Your task to perform on an android device: change text size in settings app Image 0: 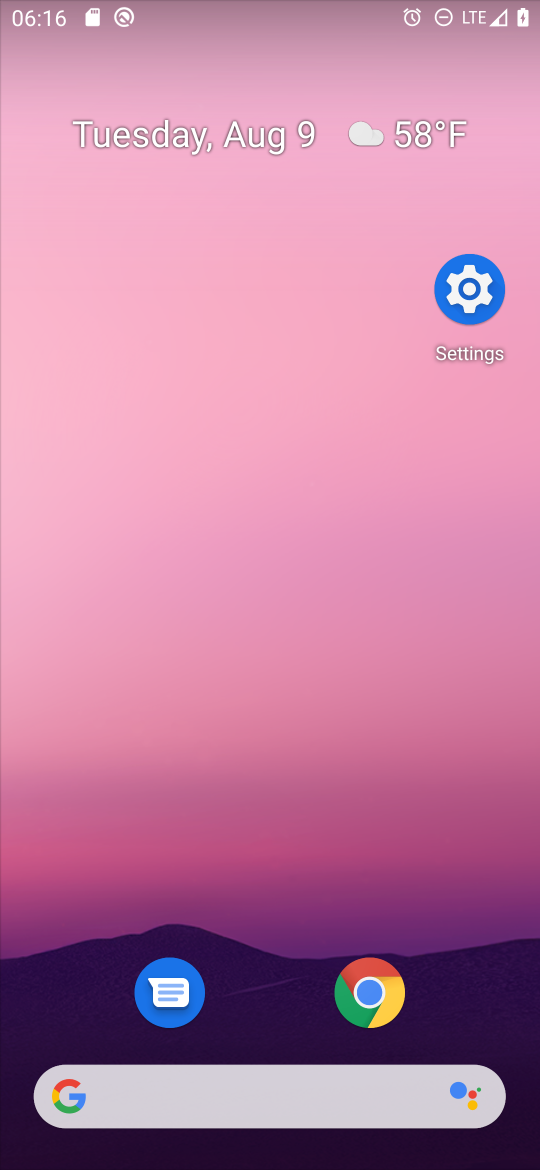
Step 0: drag from (324, 1104) to (489, 232)
Your task to perform on an android device: change text size in settings app Image 1: 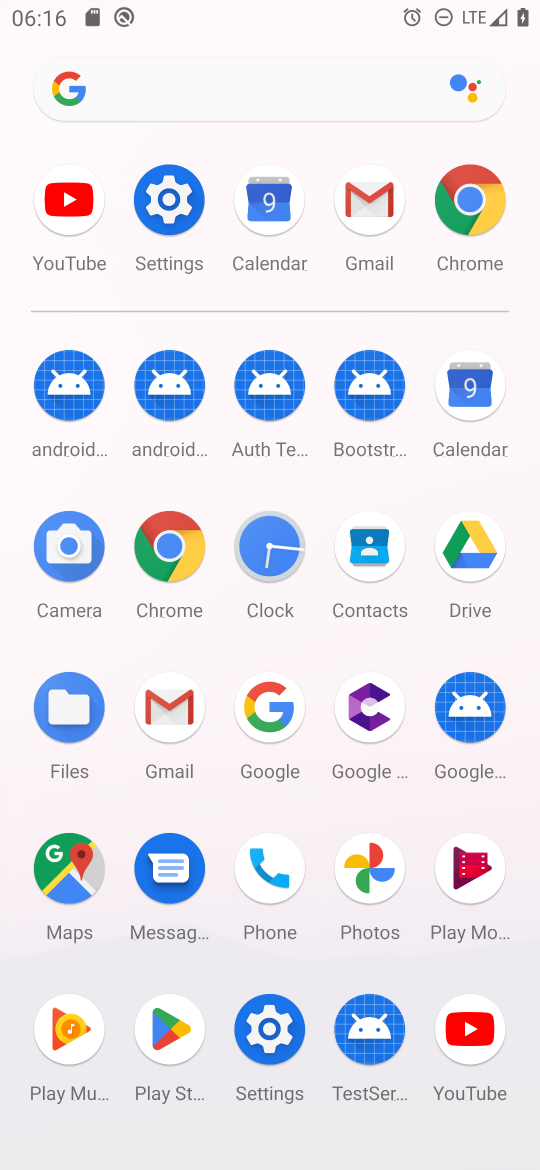
Step 1: click (167, 215)
Your task to perform on an android device: change text size in settings app Image 2: 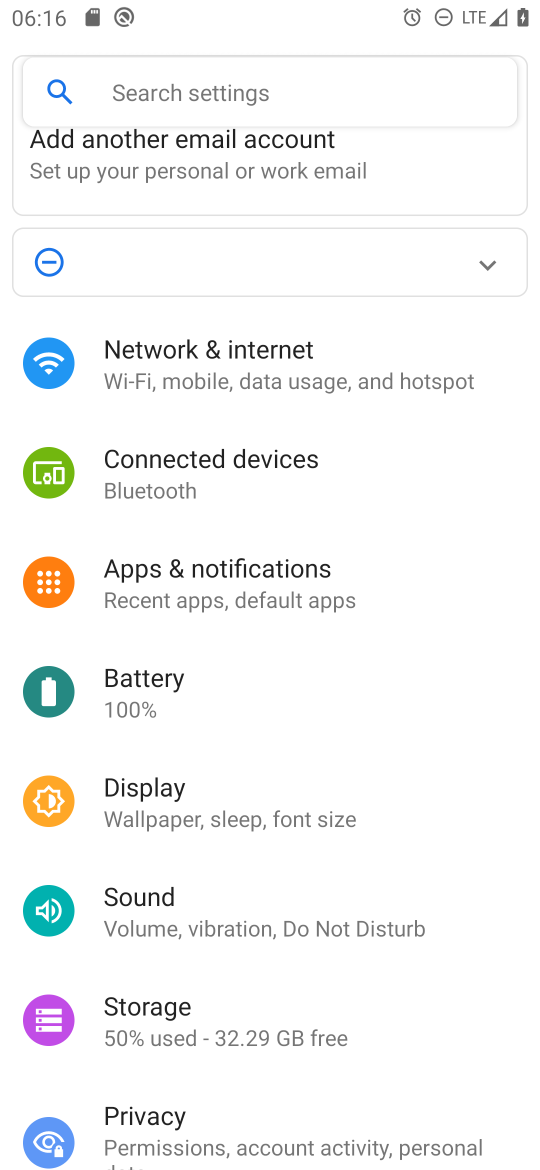
Step 2: drag from (437, 1053) to (245, 339)
Your task to perform on an android device: change text size in settings app Image 3: 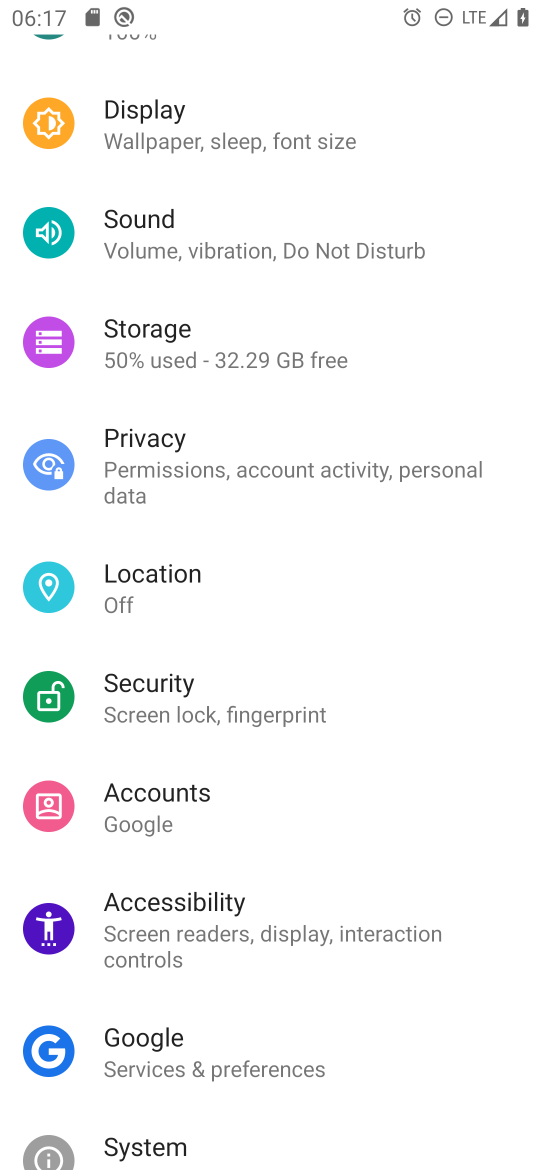
Step 3: drag from (457, 1033) to (490, 529)
Your task to perform on an android device: change text size in settings app Image 4: 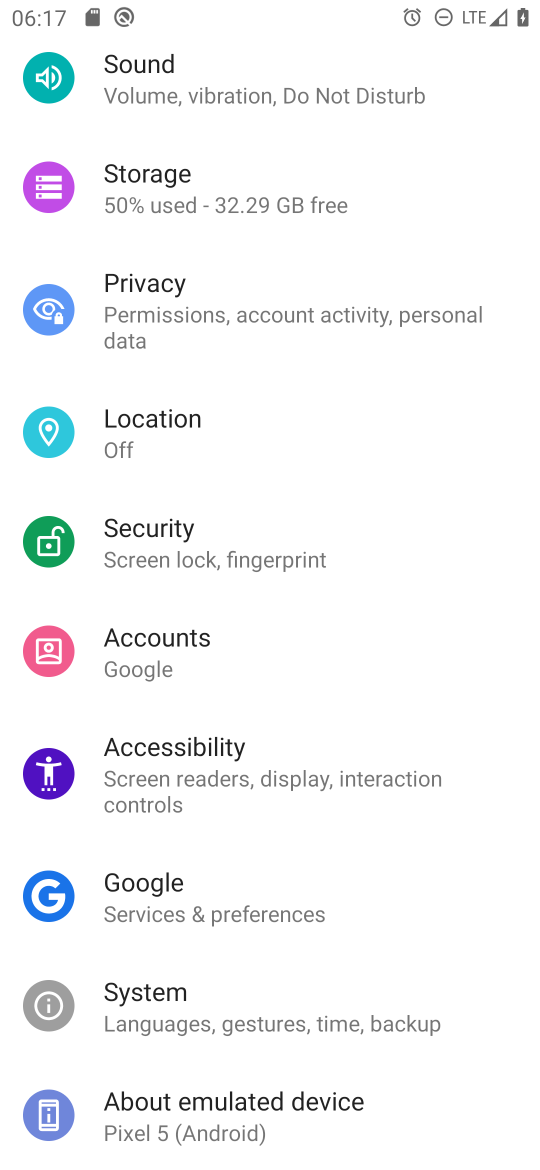
Step 4: click (225, 789)
Your task to perform on an android device: change text size in settings app Image 5: 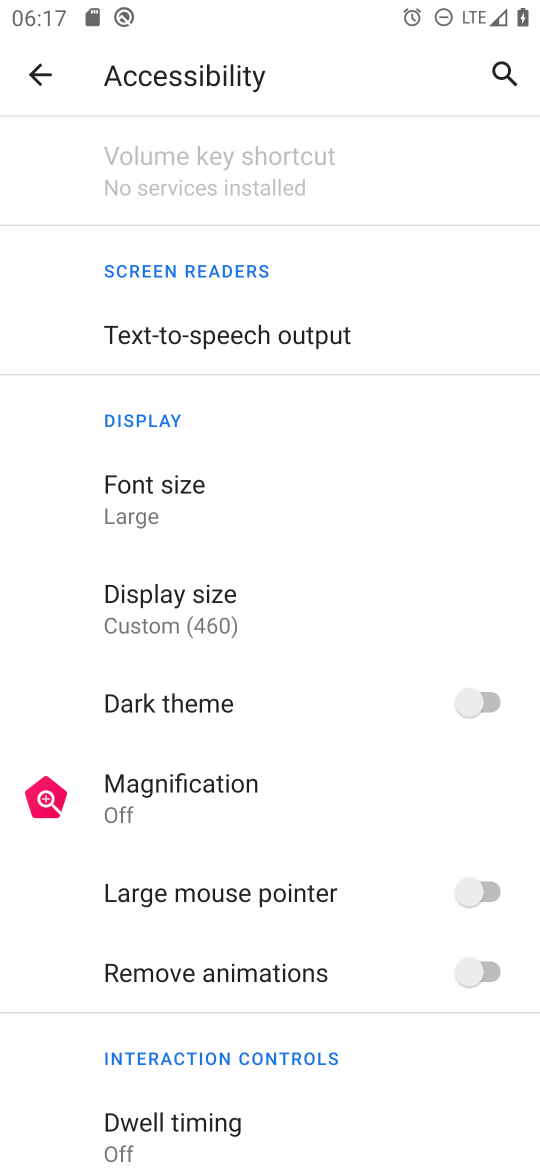
Step 5: click (188, 513)
Your task to perform on an android device: change text size in settings app Image 6: 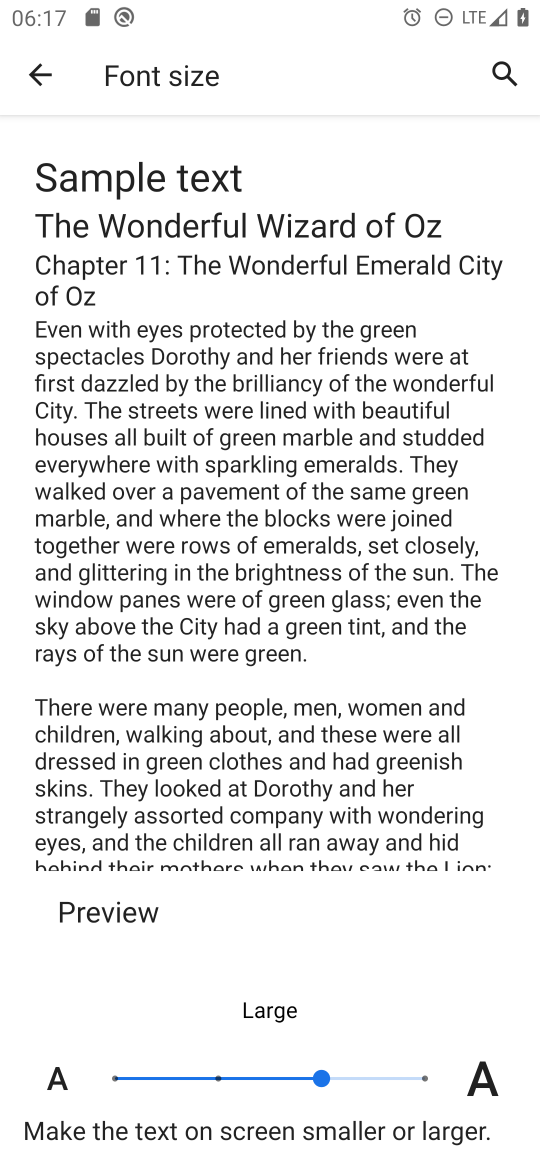
Step 6: click (380, 1072)
Your task to perform on an android device: change text size in settings app Image 7: 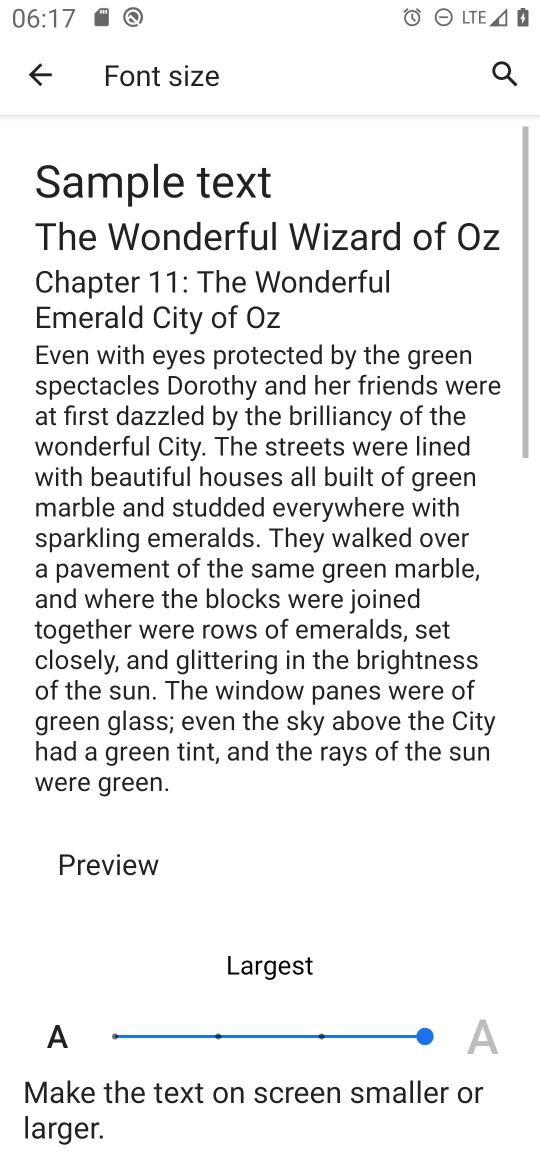
Step 7: task complete